Your task to perform on an android device: empty trash in the gmail app Image 0: 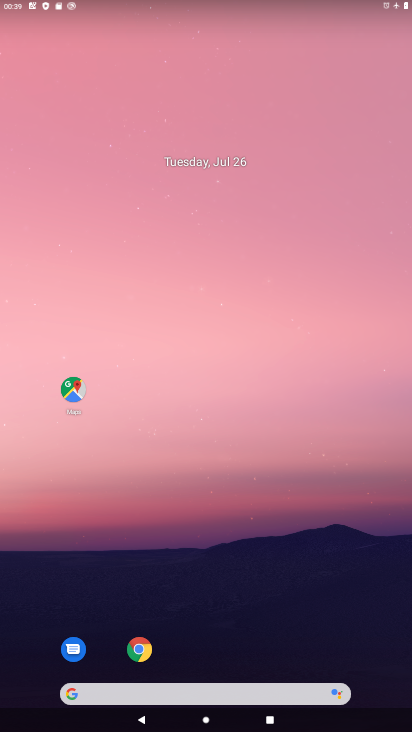
Step 0: drag from (226, 728) to (223, 137)
Your task to perform on an android device: empty trash in the gmail app Image 1: 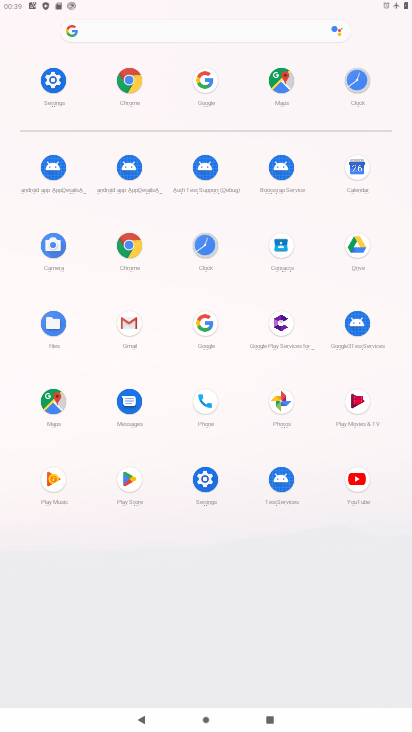
Step 1: click (126, 321)
Your task to perform on an android device: empty trash in the gmail app Image 2: 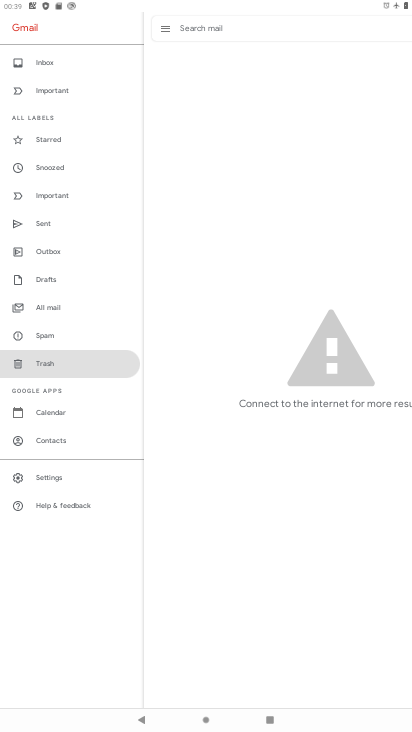
Step 2: task complete